Your task to perform on an android device: change your default location settings in chrome Image 0: 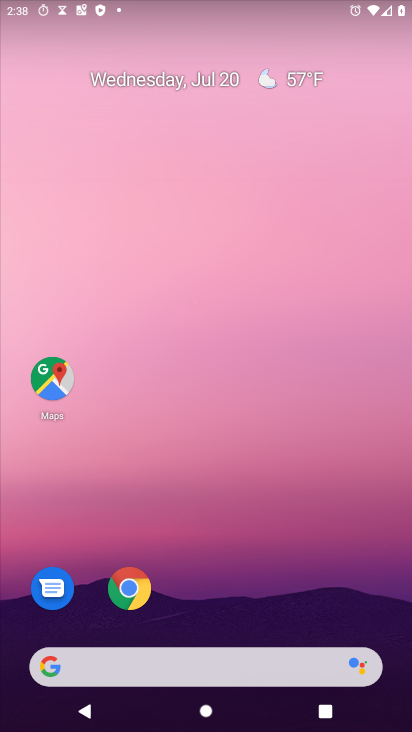
Step 0: drag from (254, 657) to (250, 7)
Your task to perform on an android device: change your default location settings in chrome Image 1: 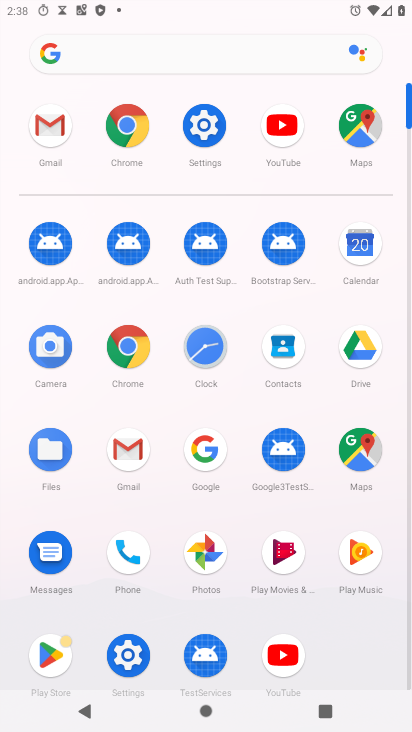
Step 1: click (132, 347)
Your task to perform on an android device: change your default location settings in chrome Image 2: 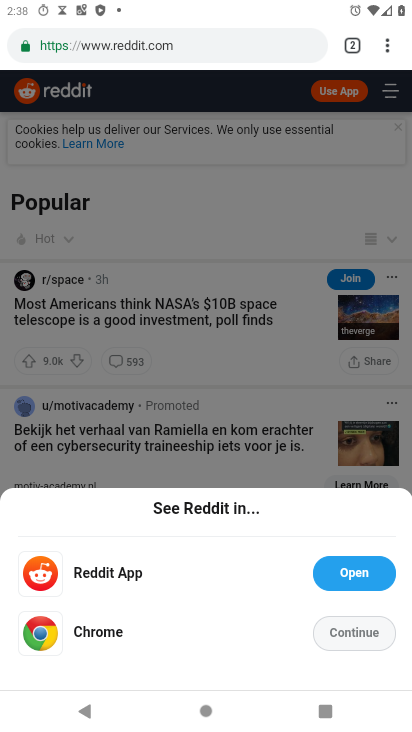
Step 2: drag from (382, 39) to (225, 546)
Your task to perform on an android device: change your default location settings in chrome Image 3: 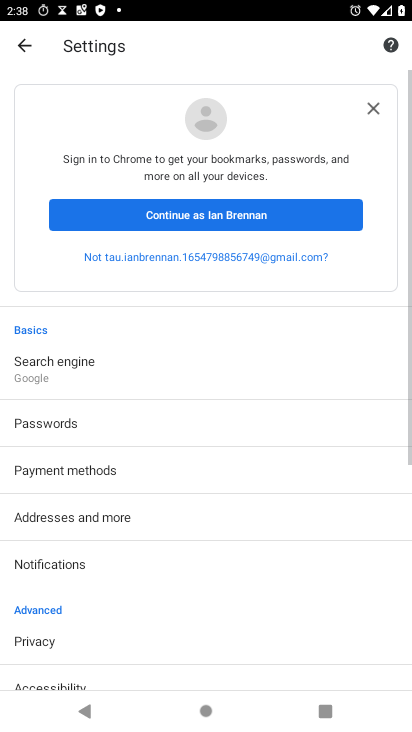
Step 3: drag from (245, 584) to (340, 92)
Your task to perform on an android device: change your default location settings in chrome Image 4: 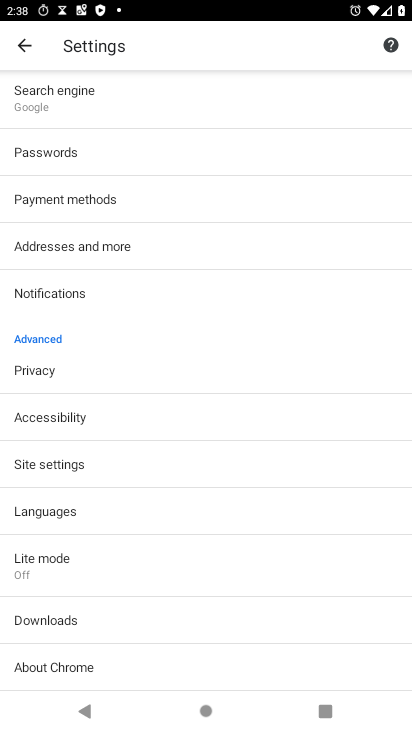
Step 4: drag from (116, 554) to (182, 193)
Your task to perform on an android device: change your default location settings in chrome Image 5: 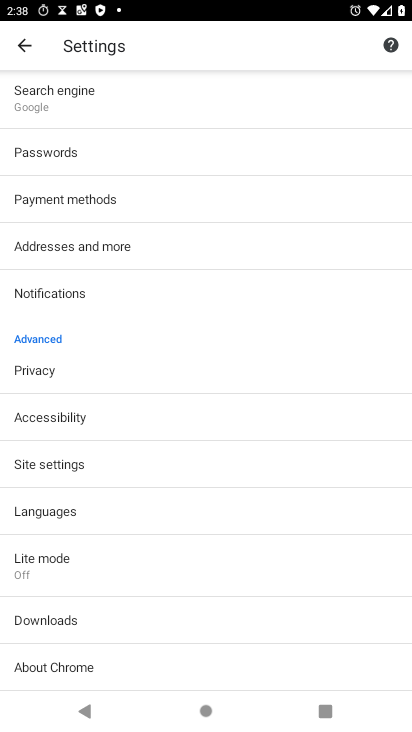
Step 5: click (183, 455)
Your task to perform on an android device: change your default location settings in chrome Image 6: 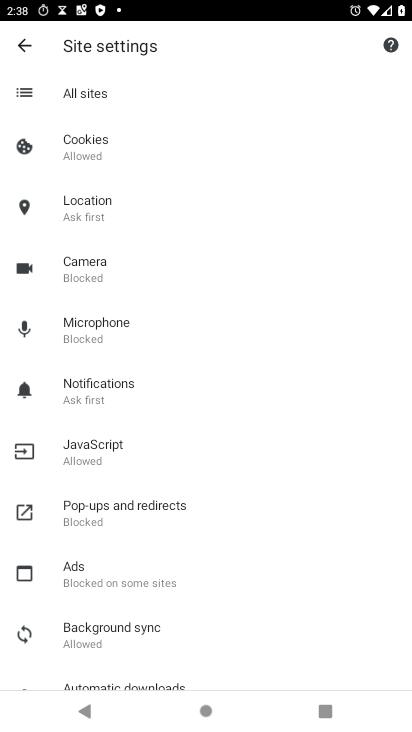
Step 6: click (96, 207)
Your task to perform on an android device: change your default location settings in chrome Image 7: 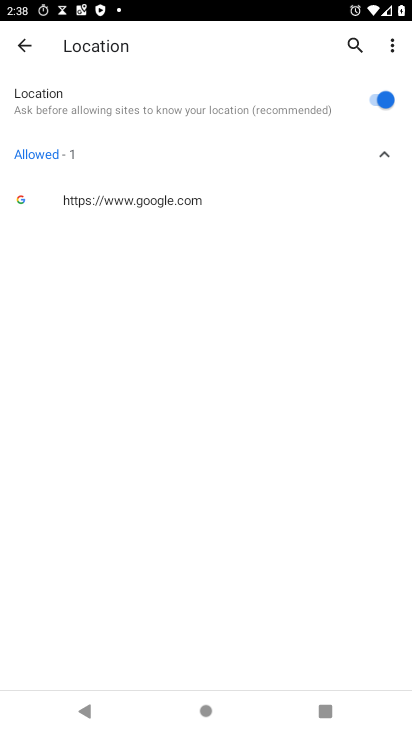
Step 7: task complete